Your task to perform on an android device: make emails show in primary in the gmail app Image 0: 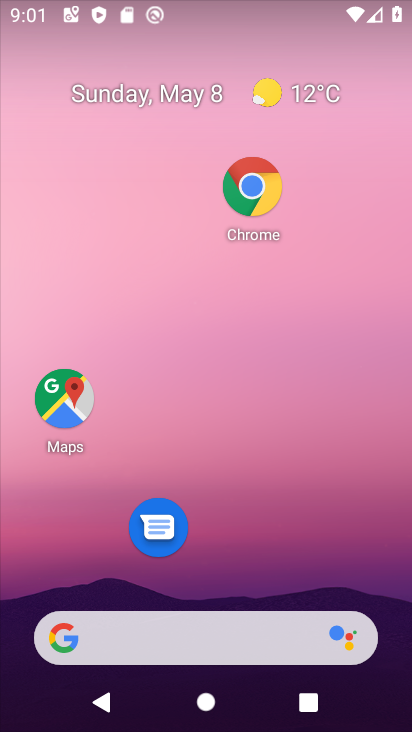
Step 0: drag from (295, 545) to (316, 324)
Your task to perform on an android device: make emails show in primary in the gmail app Image 1: 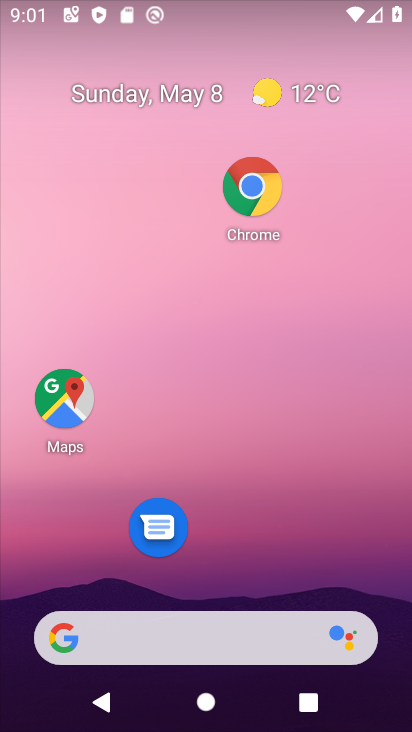
Step 1: drag from (261, 456) to (291, 225)
Your task to perform on an android device: make emails show in primary in the gmail app Image 2: 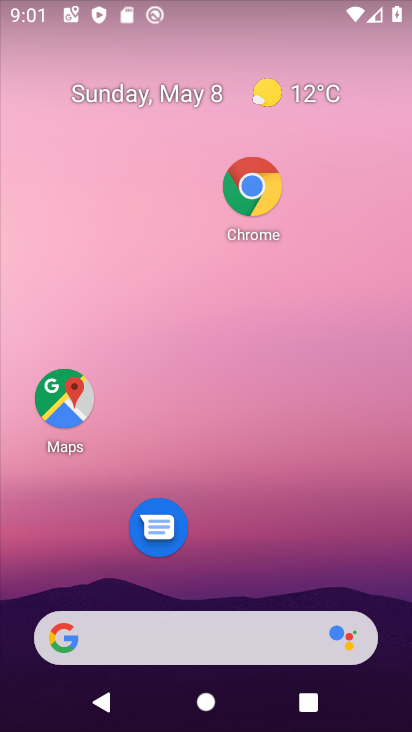
Step 2: drag from (316, 513) to (359, 253)
Your task to perform on an android device: make emails show in primary in the gmail app Image 3: 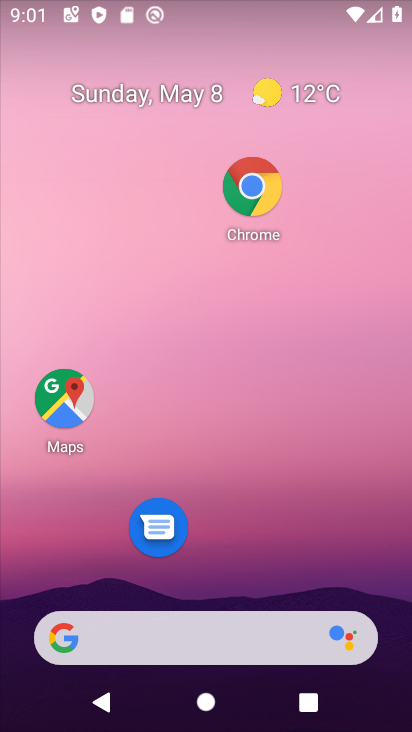
Step 3: drag from (298, 578) to (336, 178)
Your task to perform on an android device: make emails show in primary in the gmail app Image 4: 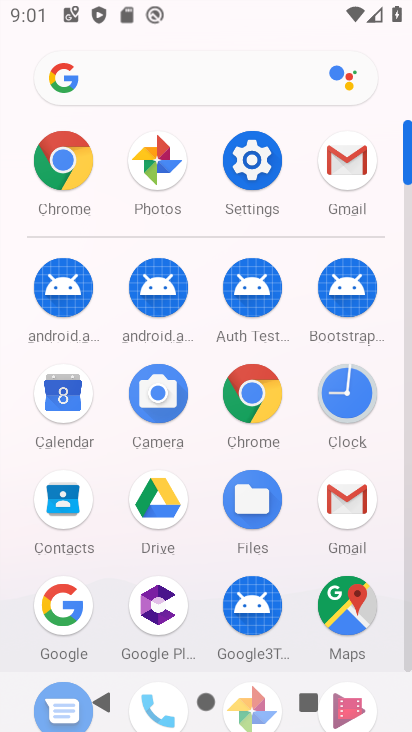
Step 4: click (347, 488)
Your task to perform on an android device: make emails show in primary in the gmail app Image 5: 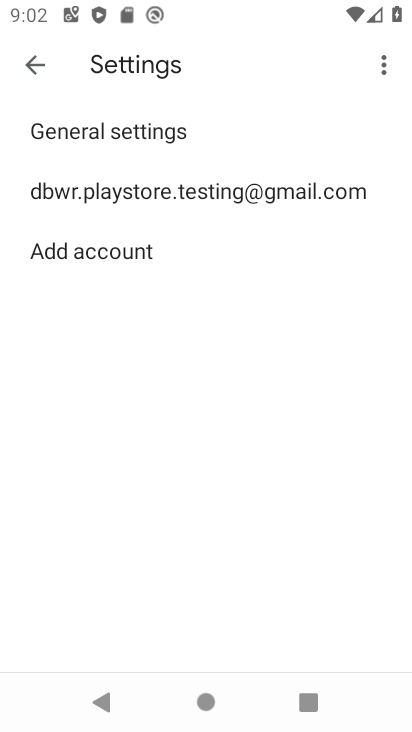
Step 5: click (258, 180)
Your task to perform on an android device: make emails show in primary in the gmail app Image 6: 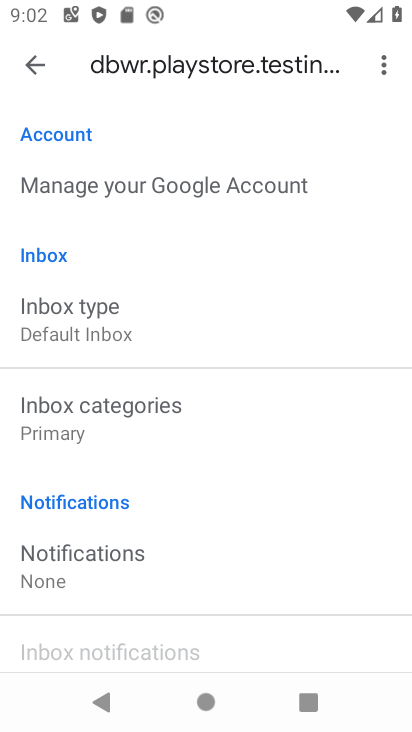
Step 6: click (40, 72)
Your task to perform on an android device: make emails show in primary in the gmail app Image 7: 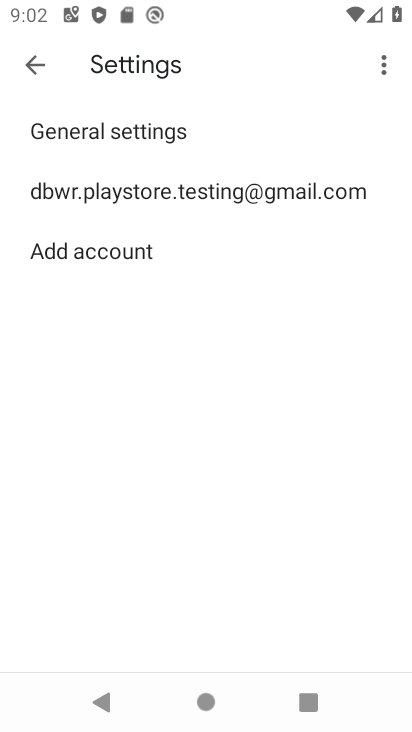
Step 7: press back button
Your task to perform on an android device: make emails show in primary in the gmail app Image 8: 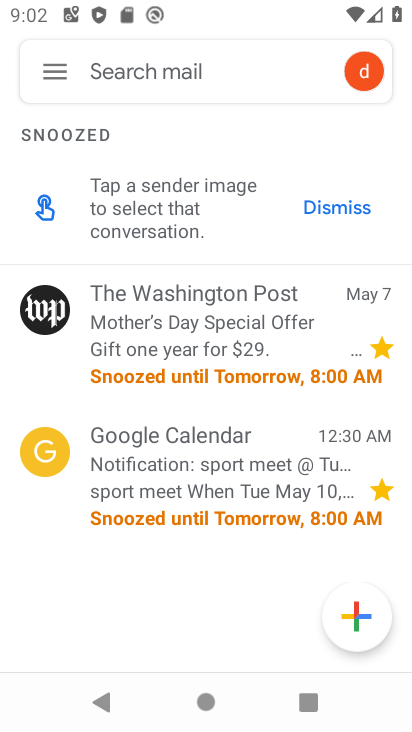
Step 8: click (48, 78)
Your task to perform on an android device: make emails show in primary in the gmail app Image 9: 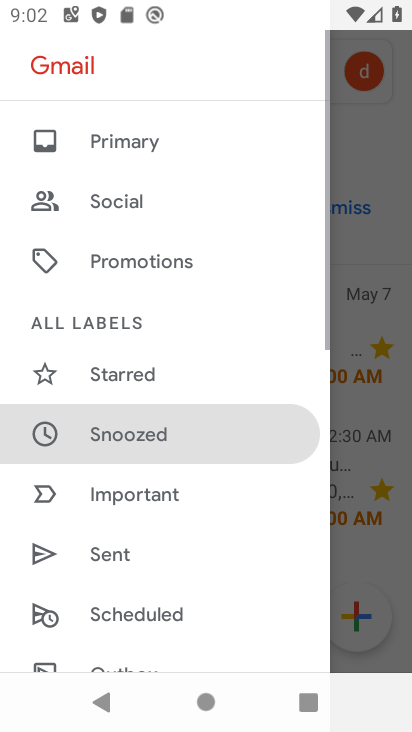
Step 9: click (84, 148)
Your task to perform on an android device: make emails show in primary in the gmail app Image 10: 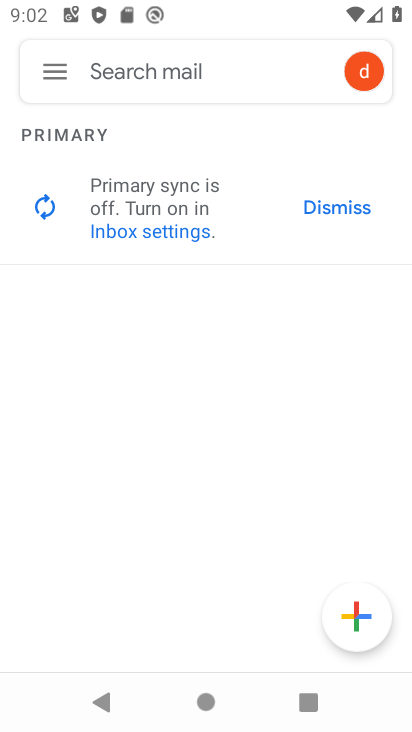
Step 10: task complete